Your task to perform on an android device: Open sound settings Image 0: 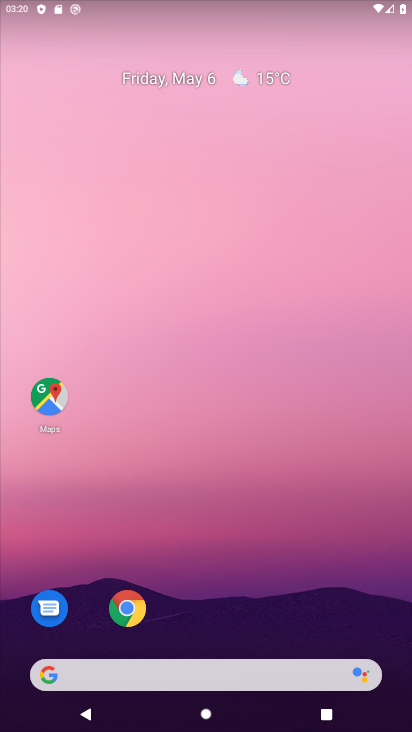
Step 0: drag from (229, 663) to (278, 66)
Your task to perform on an android device: Open sound settings Image 1: 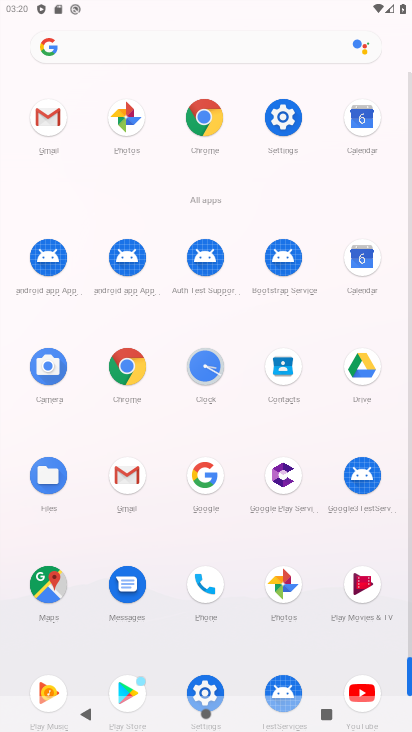
Step 1: click (281, 113)
Your task to perform on an android device: Open sound settings Image 2: 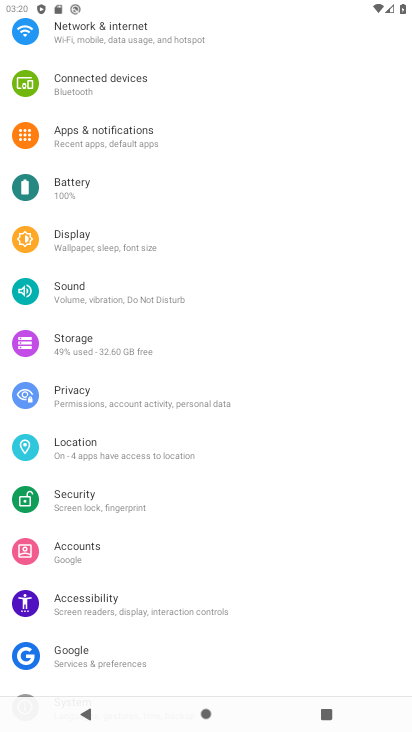
Step 2: click (85, 297)
Your task to perform on an android device: Open sound settings Image 3: 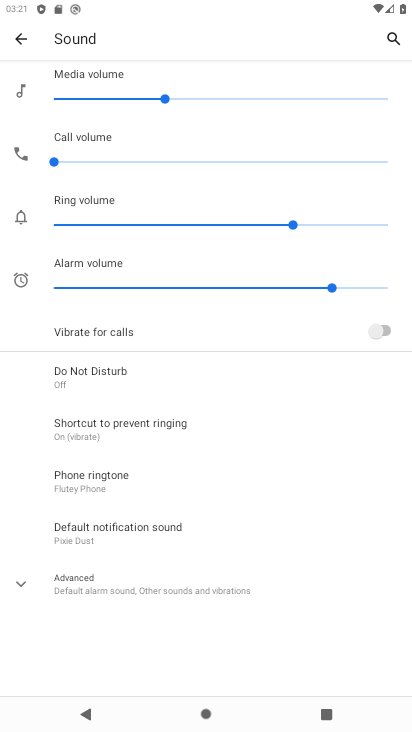
Step 3: task complete